Your task to perform on an android device: Open CNN.com Image 0: 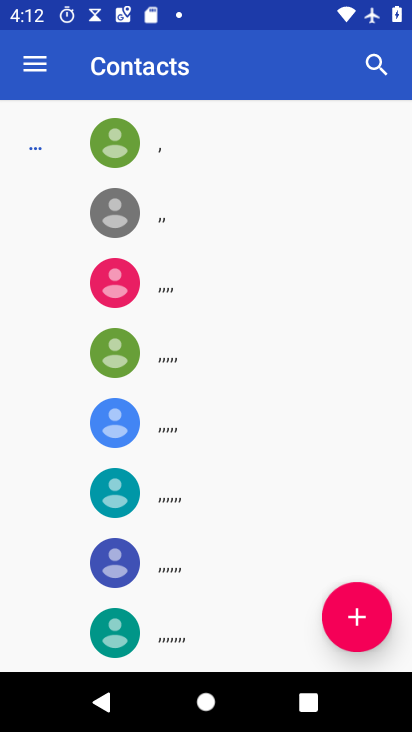
Step 0: press home button
Your task to perform on an android device: Open CNN.com Image 1: 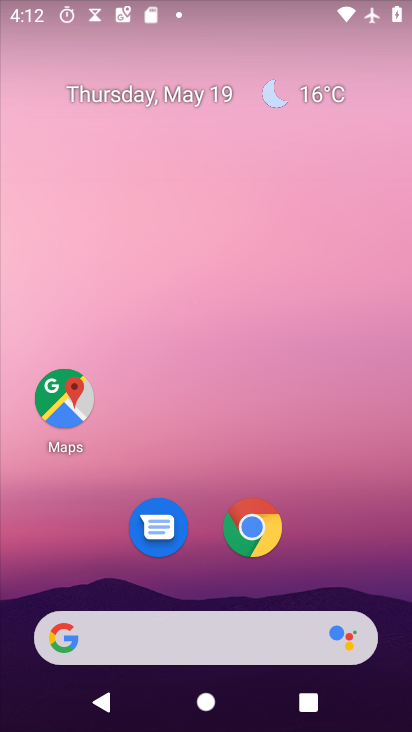
Step 1: click (271, 525)
Your task to perform on an android device: Open CNN.com Image 2: 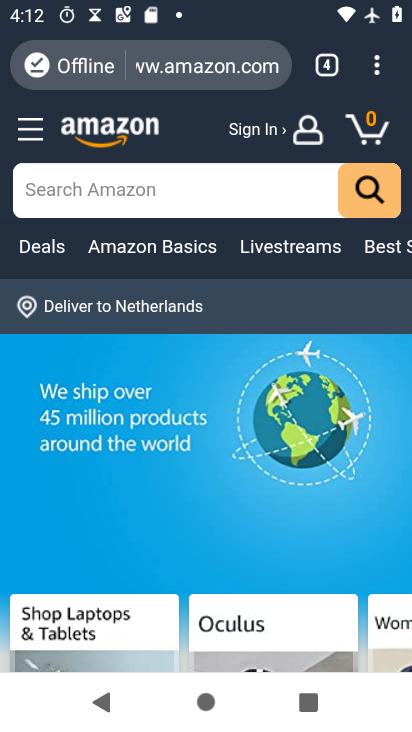
Step 2: click (333, 55)
Your task to perform on an android device: Open CNN.com Image 3: 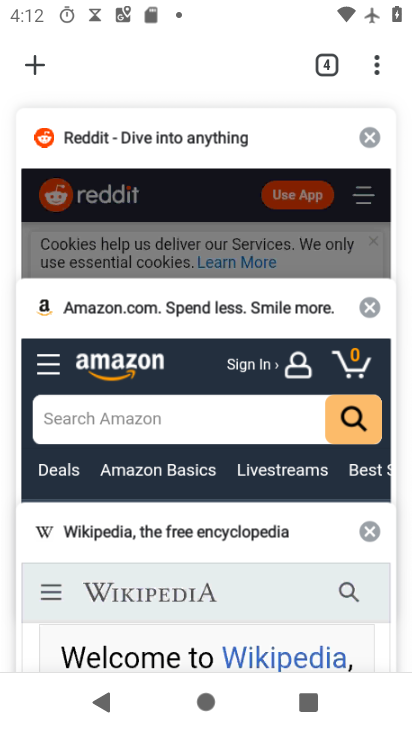
Step 3: click (27, 56)
Your task to perform on an android device: Open CNN.com Image 4: 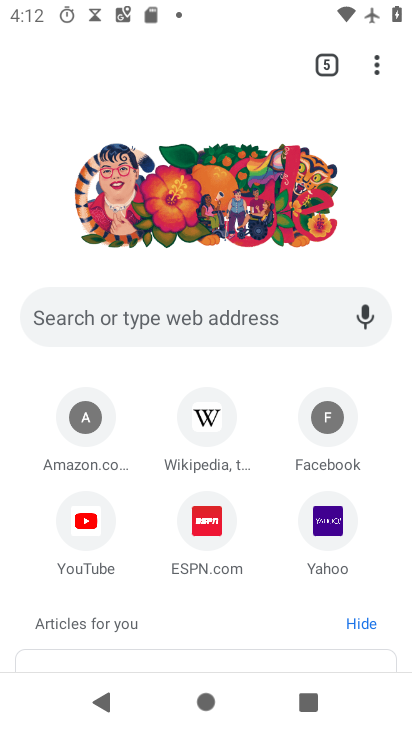
Step 4: click (162, 320)
Your task to perform on an android device: Open CNN.com Image 5: 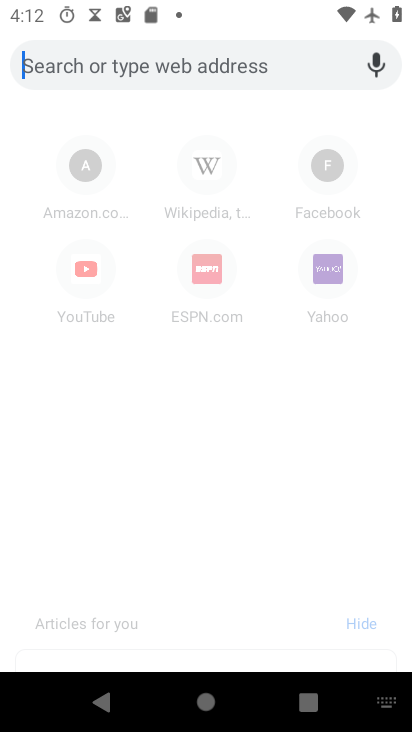
Step 5: type "CNN.com"
Your task to perform on an android device: Open CNN.com Image 6: 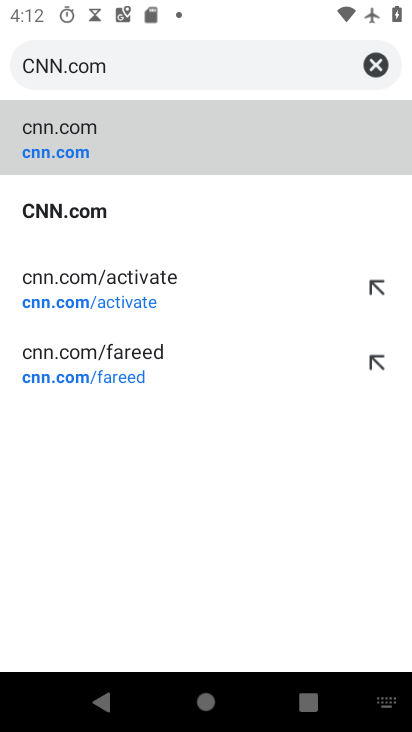
Step 6: click (227, 155)
Your task to perform on an android device: Open CNN.com Image 7: 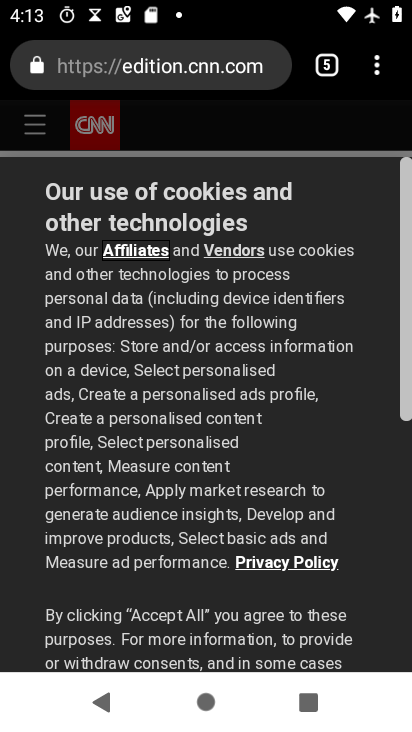
Step 7: task complete